Your task to perform on an android device: Open location settings Image 0: 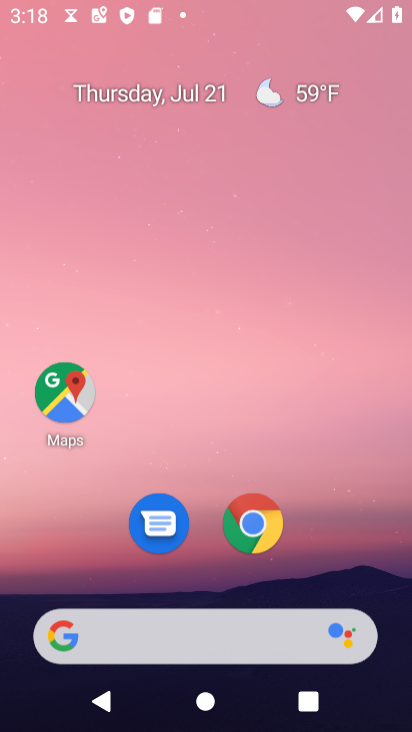
Step 0: press home button
Your task to perform on an android device: Open location settings Image 1: 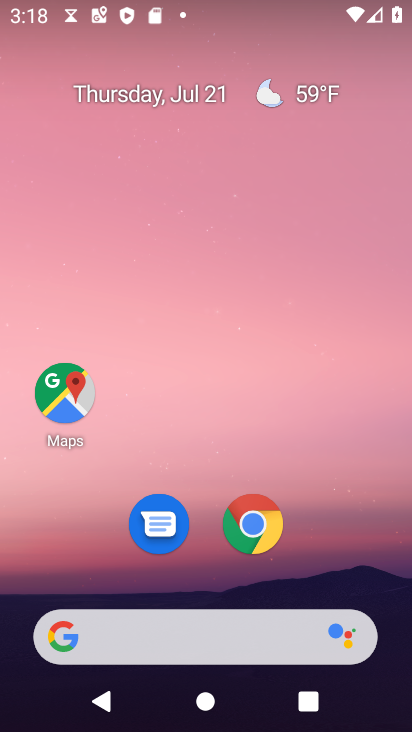
Step 1: press home button
Your task to perform on an android device: Open location settings Image 2: 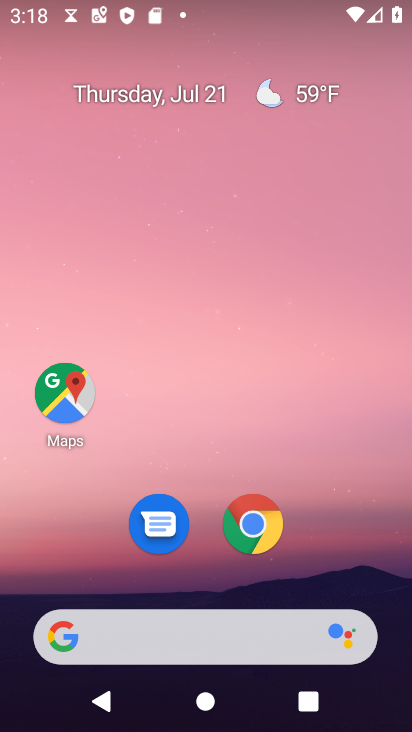
Step 2: drag from (200, 526) to (329, 26)
Your task to perform on an android device: Open location settings Image 3: 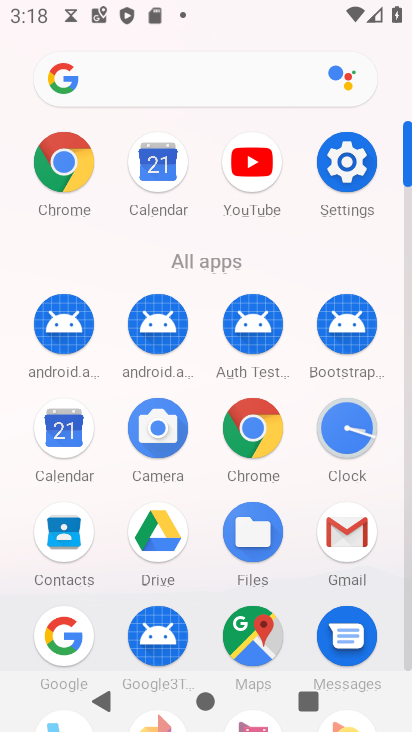
Step 3: click (356, 166)
Your task to perform on an android device: Open location settings Image 4: 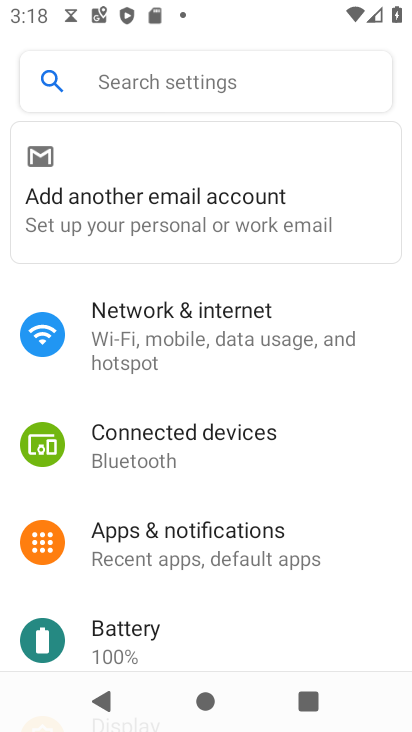
Step 4: drag from (225, 558) to (363, 51)
Your task to perform on an android device: Open location settings Image 5: 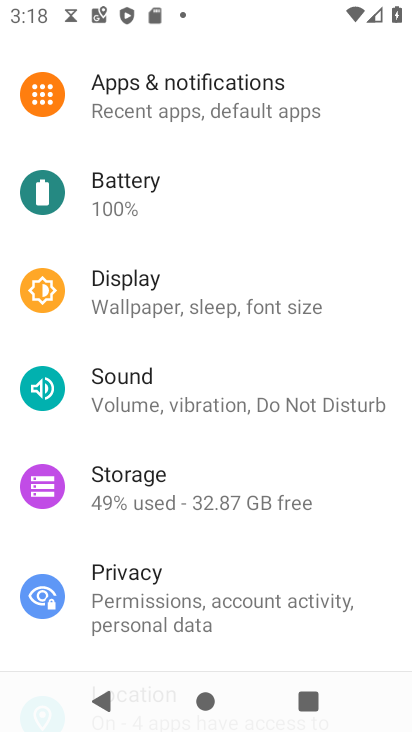
Step 5: drag from (230, 560) to (332, 197)
Your task to perform on an android device: Open location settings Image 6: 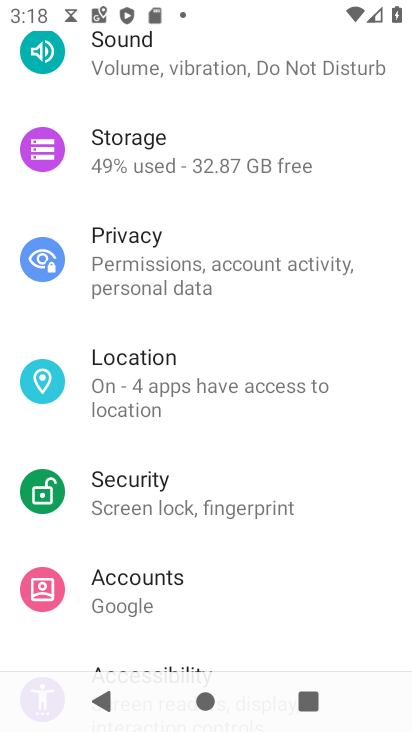
Step 6: click (192, 368)
Your task to perform on an android device: Open location settings Image 7: 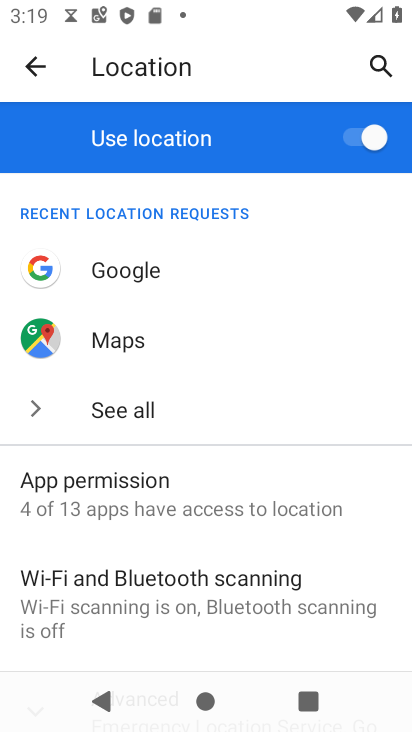
Step 7: task complete